Your task to perform on an android device: Open settings on Google Maps Image 0: 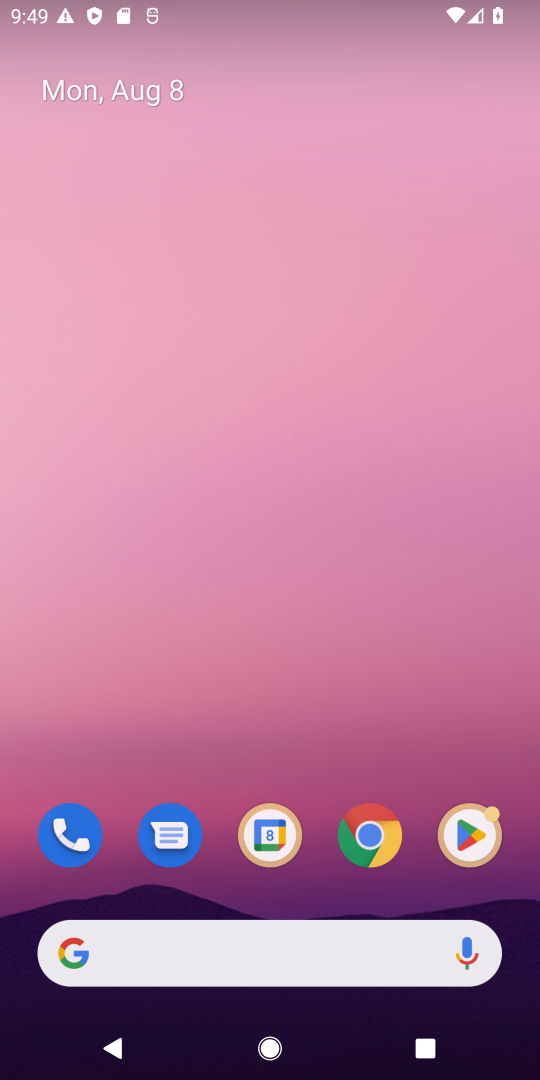
Step 0: press home button
Your task to perform on an android device: Open settings on Google Maps Image 1: 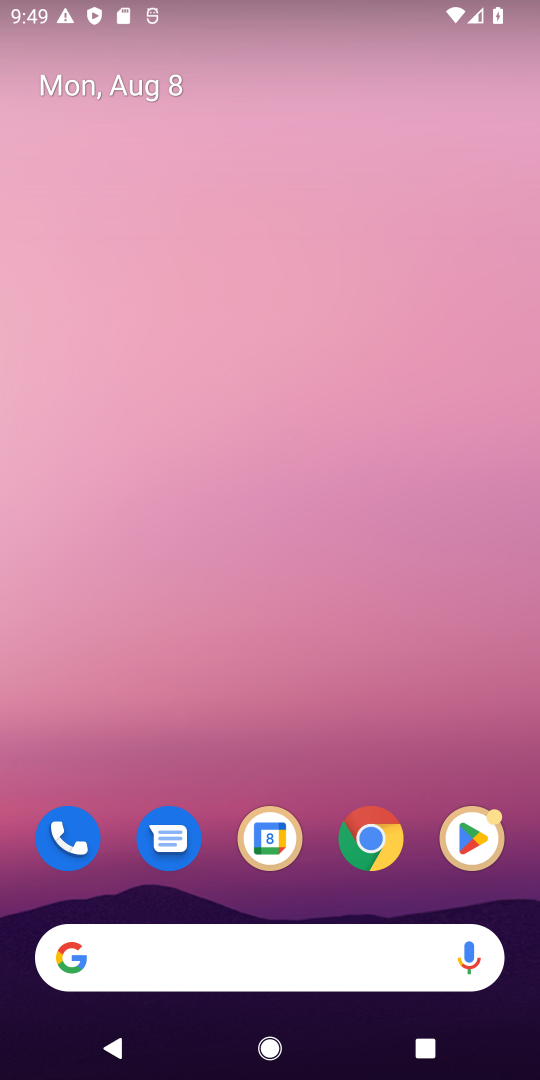
Step 1: drag from (315, 889) to (312, 82)
Your task to perform on an android device: Open settings on Google Maps Image 2: 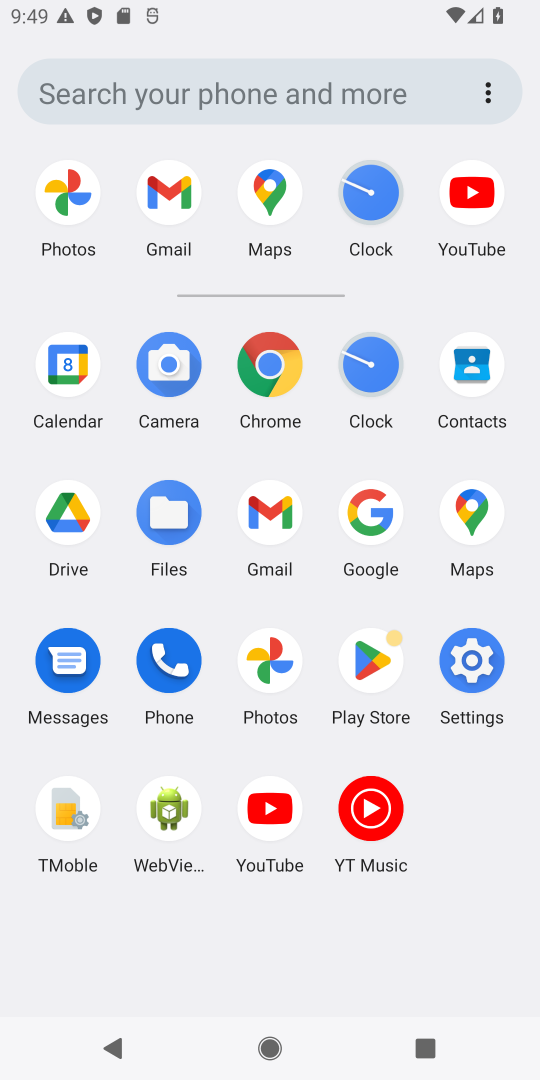
Step 2: click (465, 514)
Your task to perform on an android device: Open settings on Google Maps Image 3: 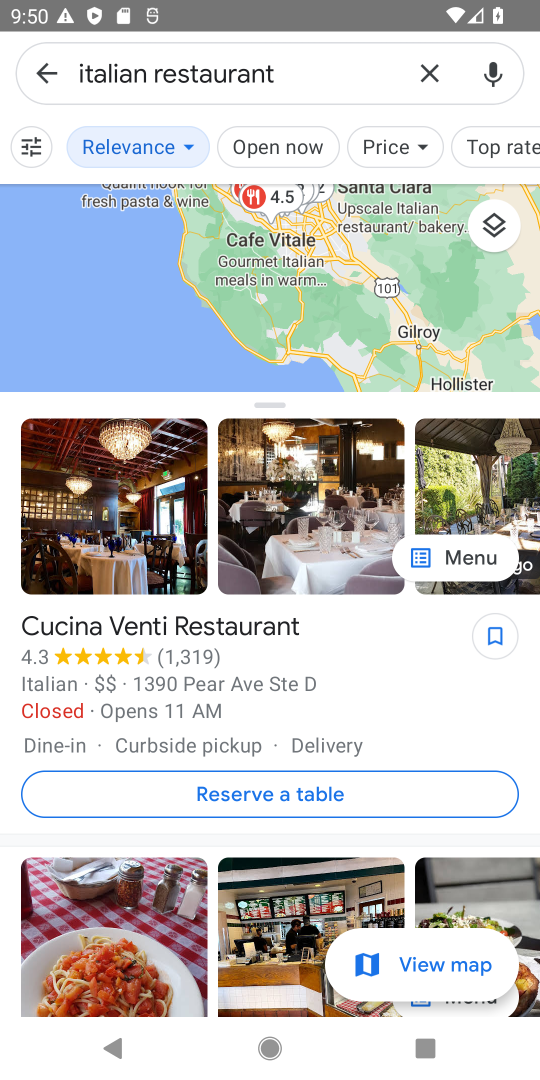
Step 3: click (43, 74)
Your task to perform on an android device: Open settings on Google Maps Image 4: 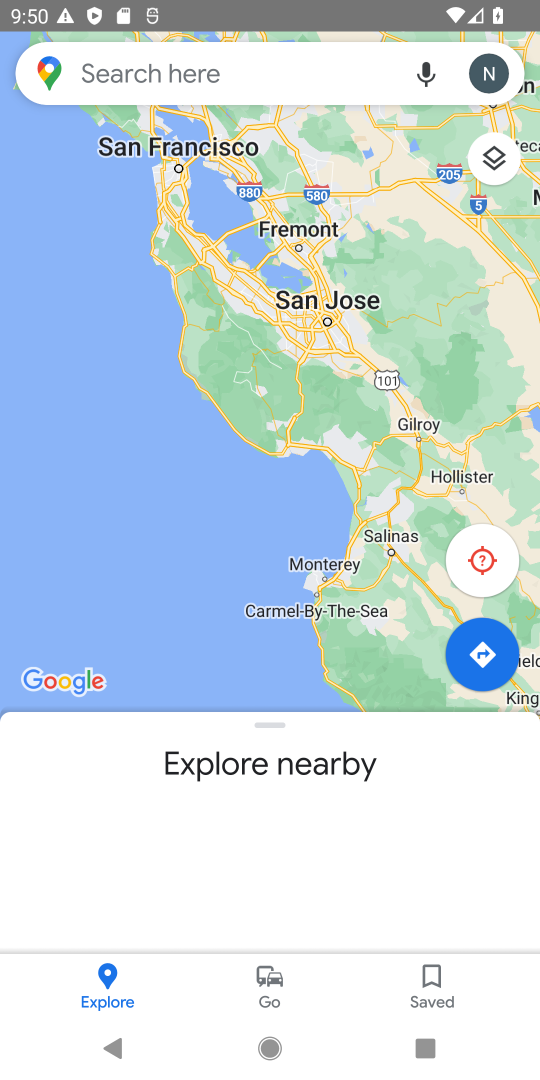
Step 4: click (187, 72)
Your task to perform on an android device: Open settings on Google Maps Image 5: 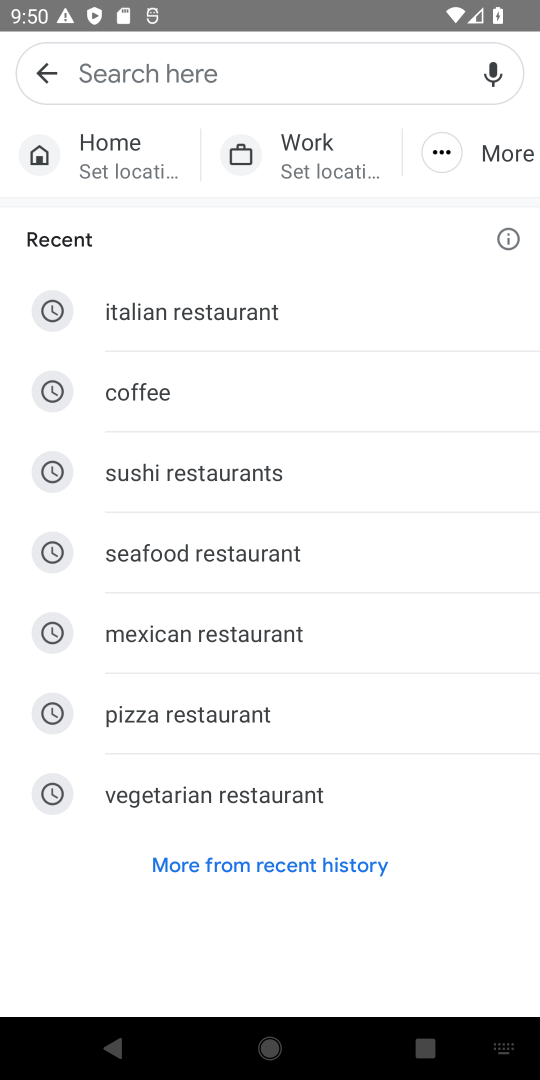
Step 5: click (50, 70)
Your task to perform on an android device: Open settings on Google Maps Image 6: 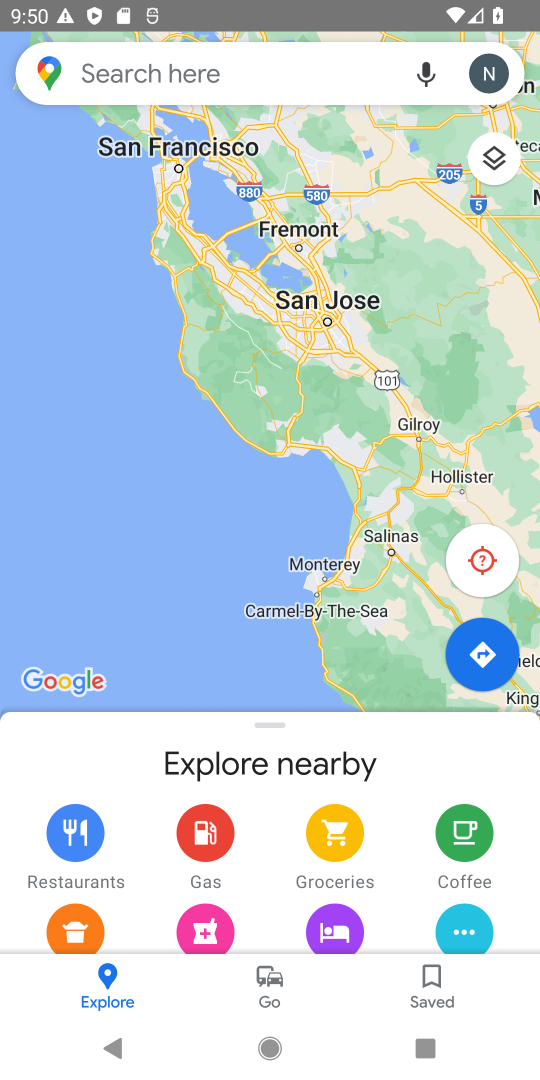
Step 6: click (473, 64)
Your task to perform on an android device: Open settings on Google Maps Image 7: 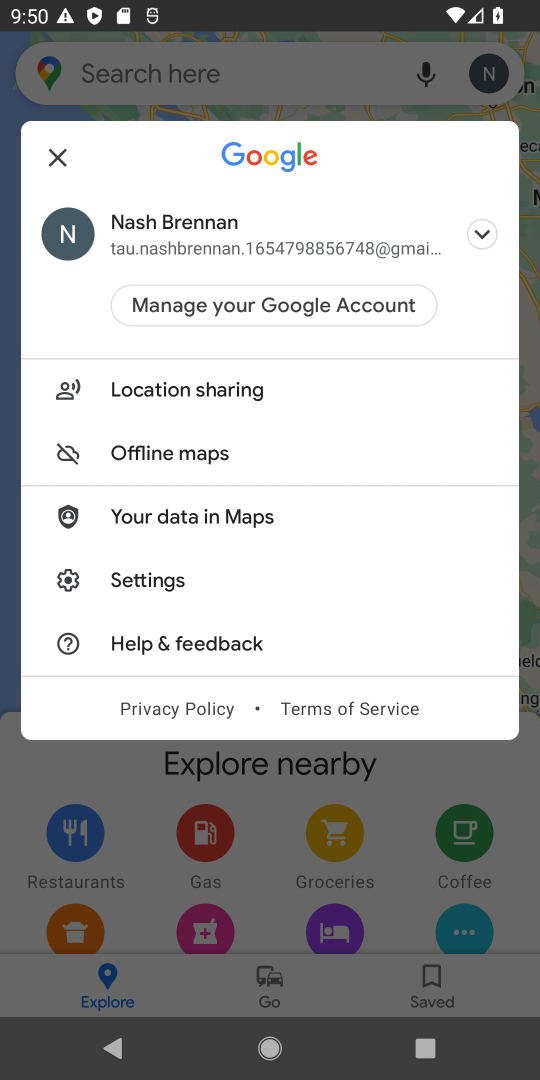
Step 7: click (137, 581)
Your task to perform on an android device: Open settings on Google Maps Image 8: 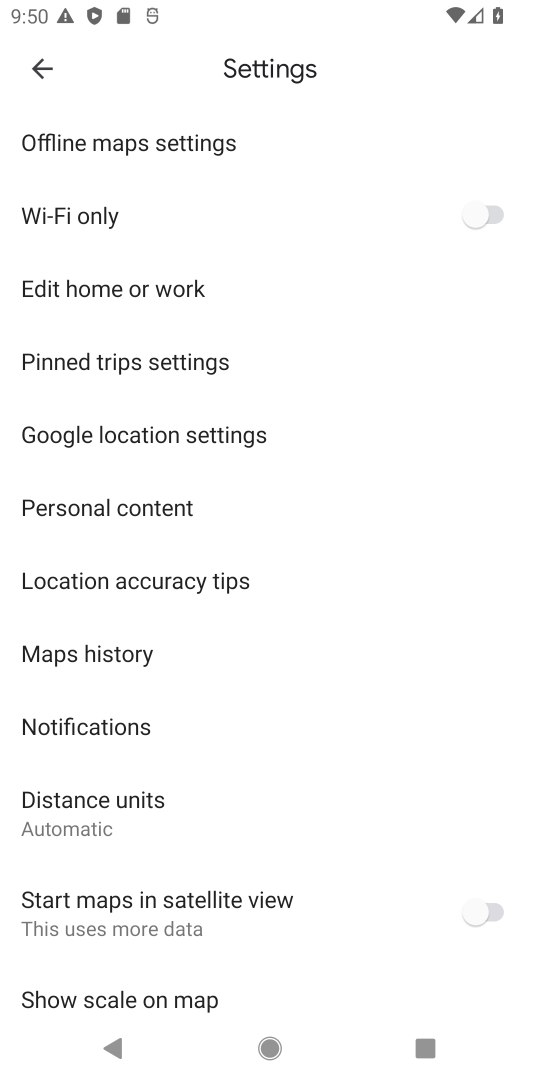
Step 8: task complete